Your task to perform on an android device: Add "amazon basics triple a" to the cart on newegg, then select checkout. Image 0: 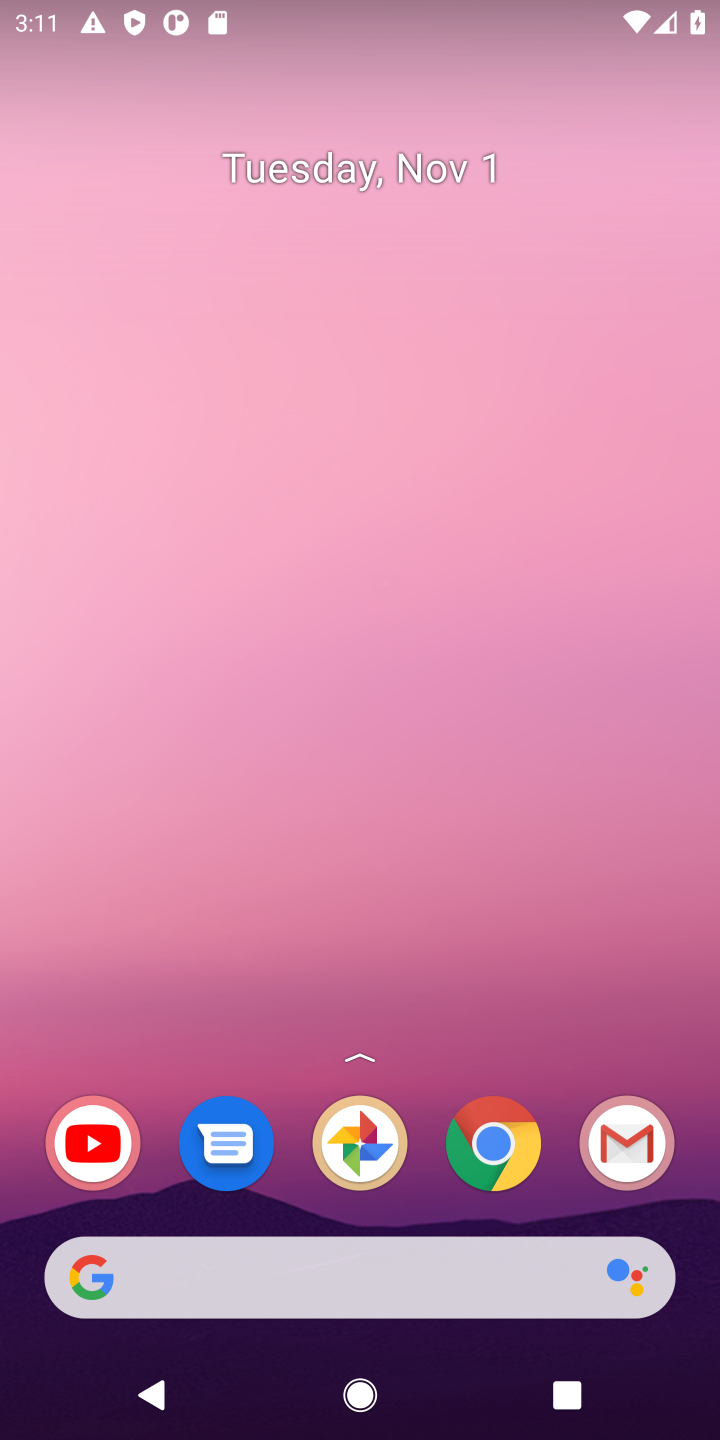
Step 0: click (554, 477)
Your task to perform on an android device: Add "amazon basics triple a" to the cart on newegg, then select checkout. Image 1: 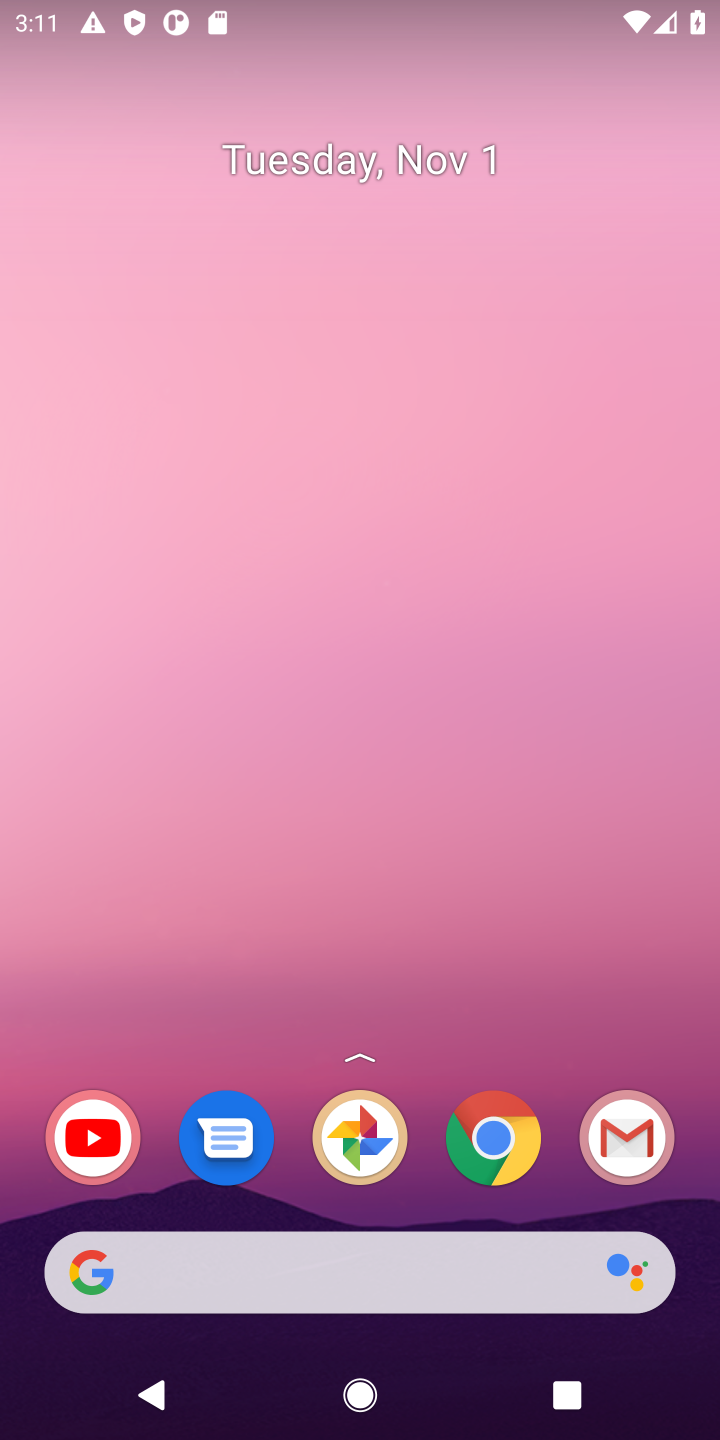
Step 1: click (486, 1134)
Your task to perform on an android device: Add "amazon basics triple a" to the cart on newegg, then select checkout. Image 2: 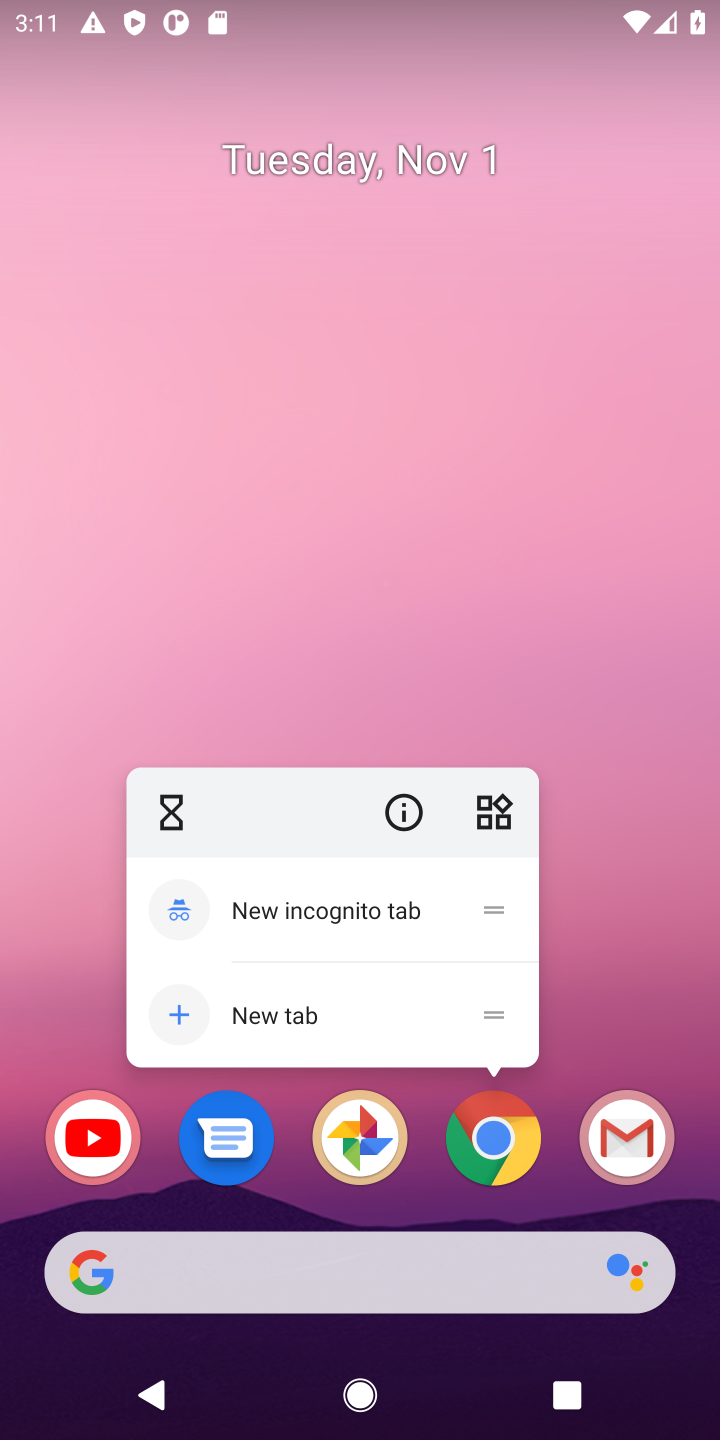
Step 2: click (486, 1134)
Your task to perform on an android device: Add "amazon basics triple a" to the cart on newegg, then select checkout. Image 3: 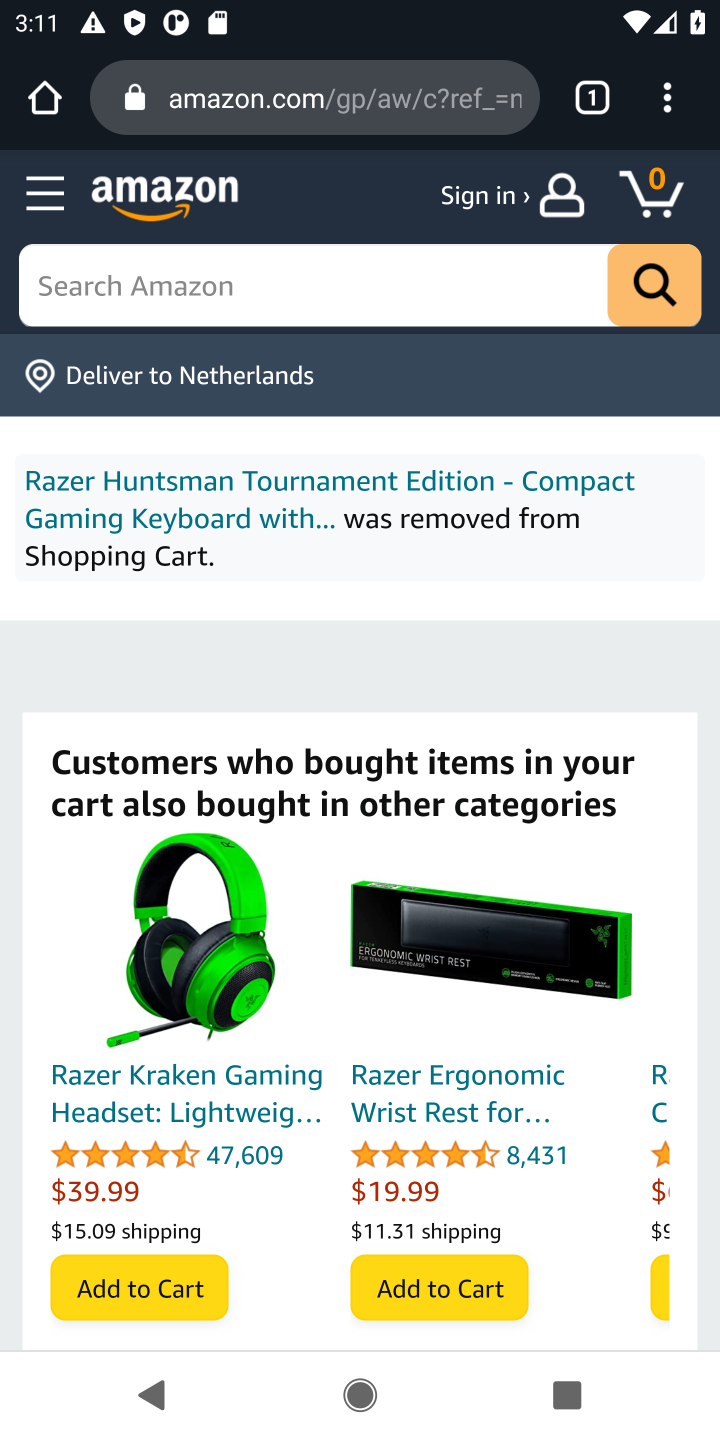
Step 3: click (328, 95)
Your task to perform on an android device: Add "amazon basics triple a" to the cart on newegg, then select checkout. Image 4: 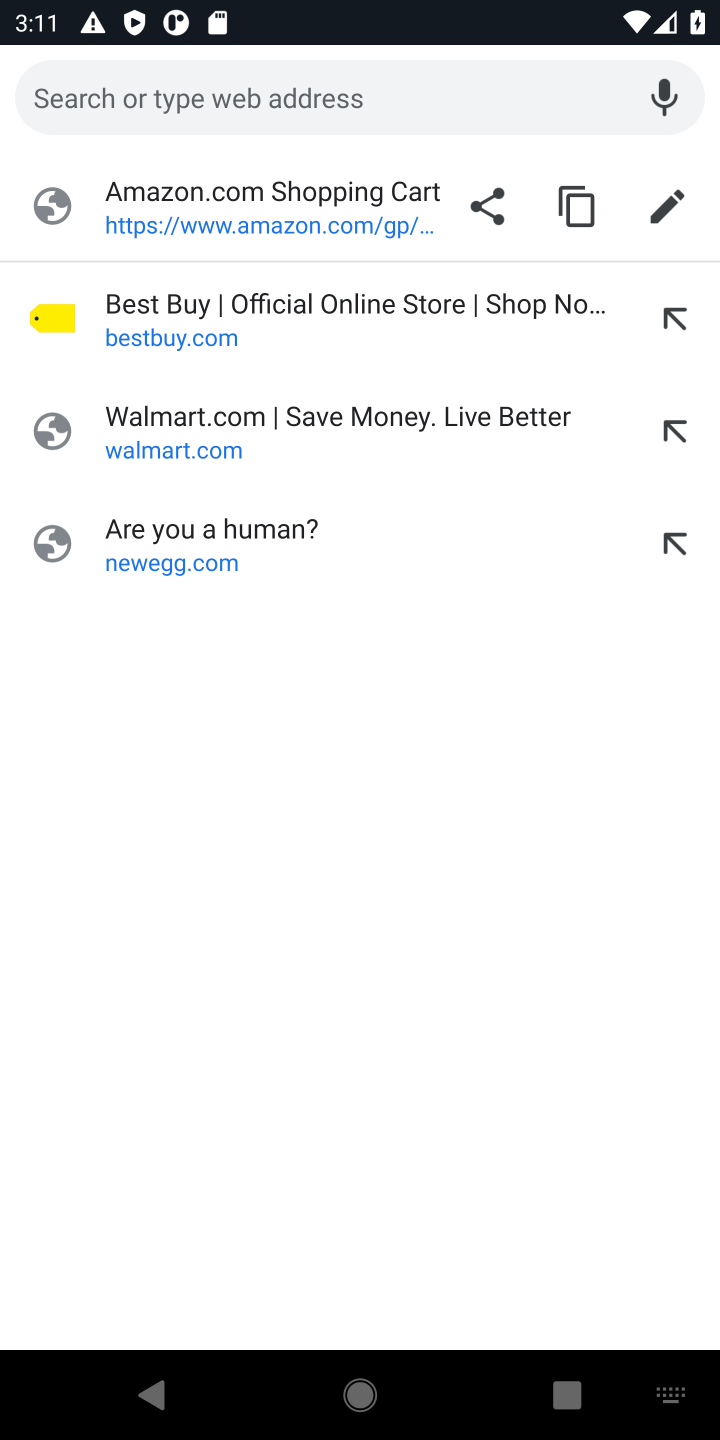
Step 4: type "newegg"
Your task to perform on an android device: Add "amazon basics triple a" to the cart on newegg, then select checkout. Image 5: 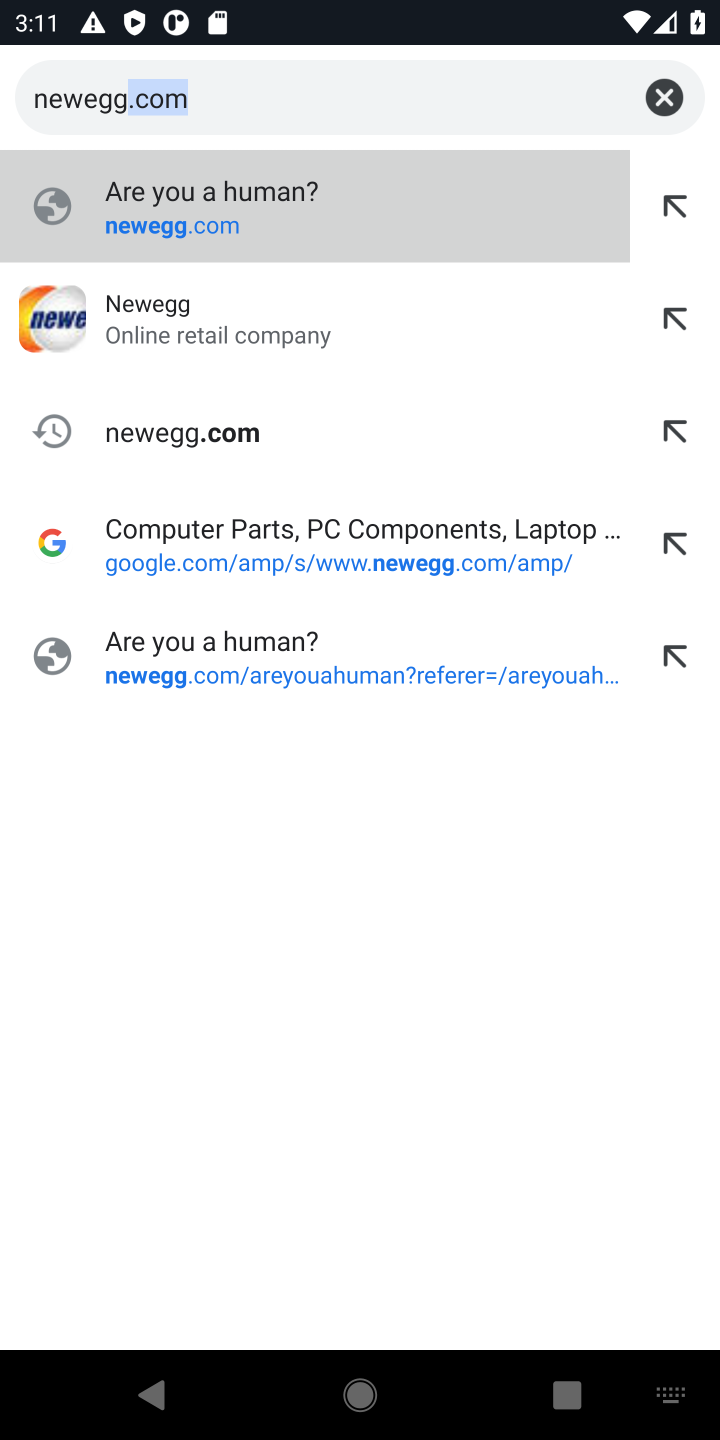
Step 5: click (178, 328)
Your task to perform on an android device: Add "amazon basics triple a" to the cart on newegg, then select checkout. Image 6: 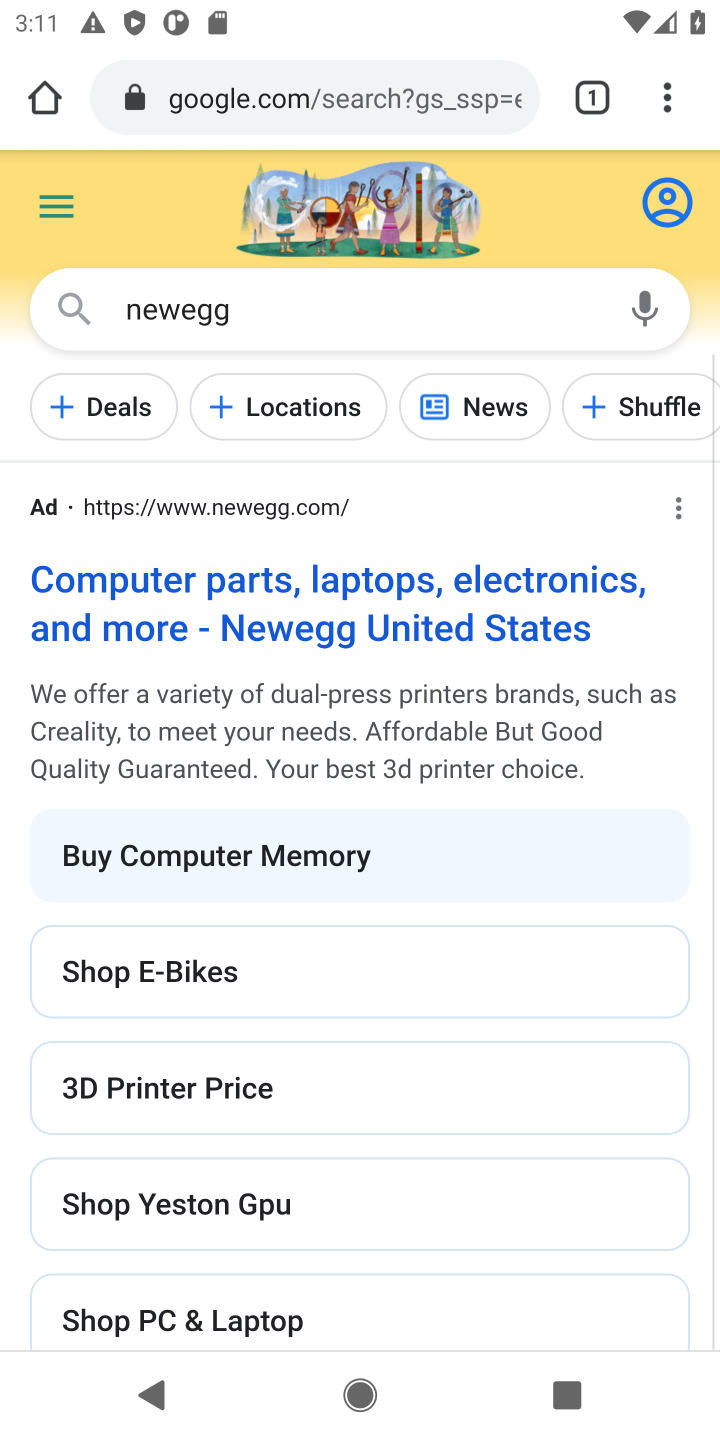
Step 6: drag from (274, 1125) to (233, 636)
Your task to perform on an android device: Add "amazon basics triple a" to the cart on newegg, then select checkout. Image 7: 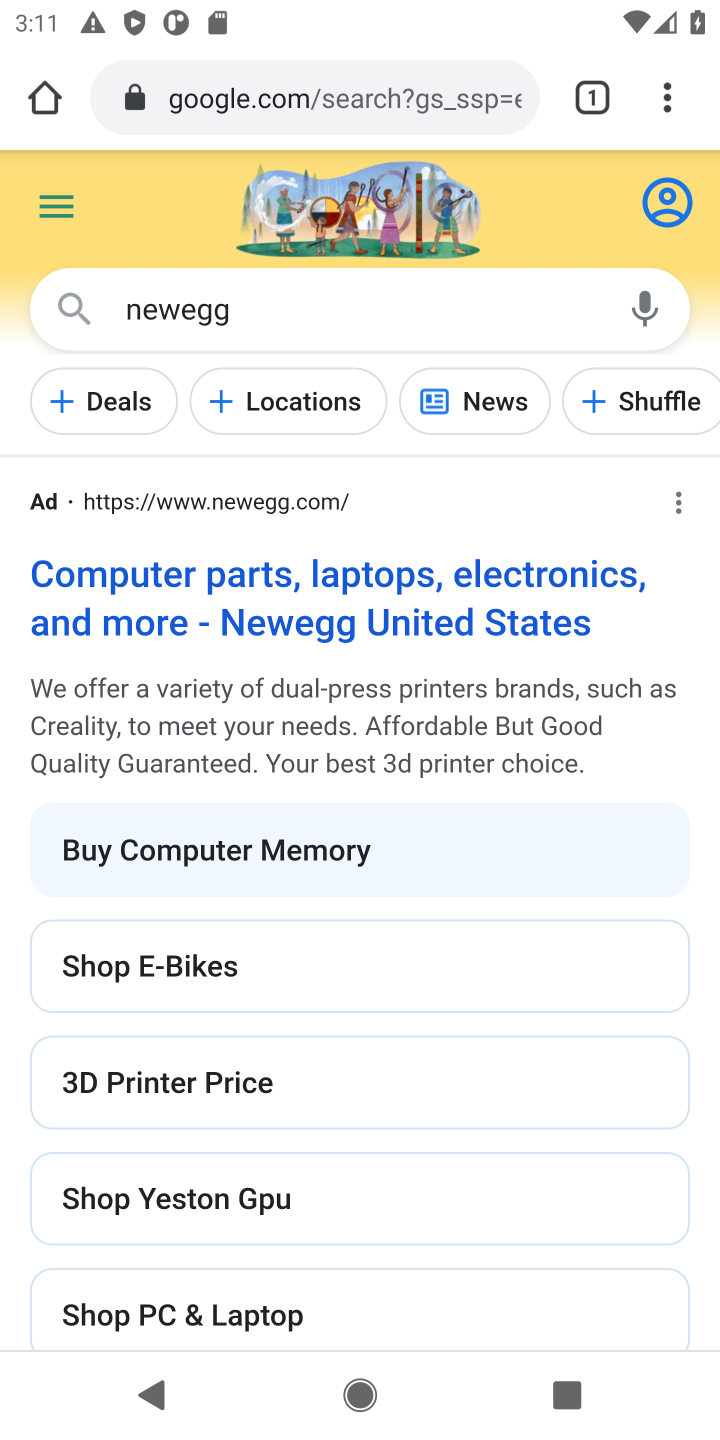
Step 7: drag from (259, 1098) to (250, 321)
Your task to perform on an android device: Add "amazon basics triple a" to the cart on newegg, then select checkout. Image 8: 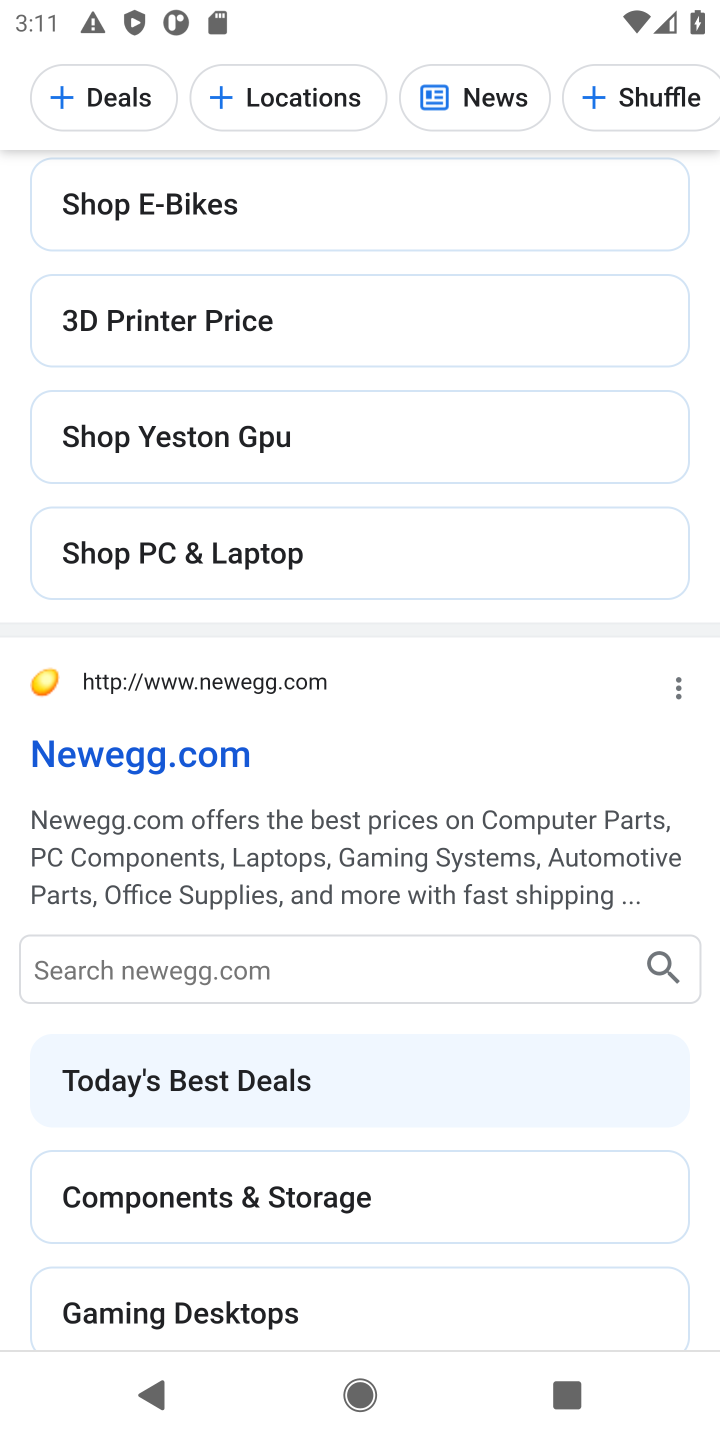
Step 8: click (155, 752)
Your task to perform on an android device: Add "amazon basics triple a" to the cart on newegg, then select checkout. Image 9: 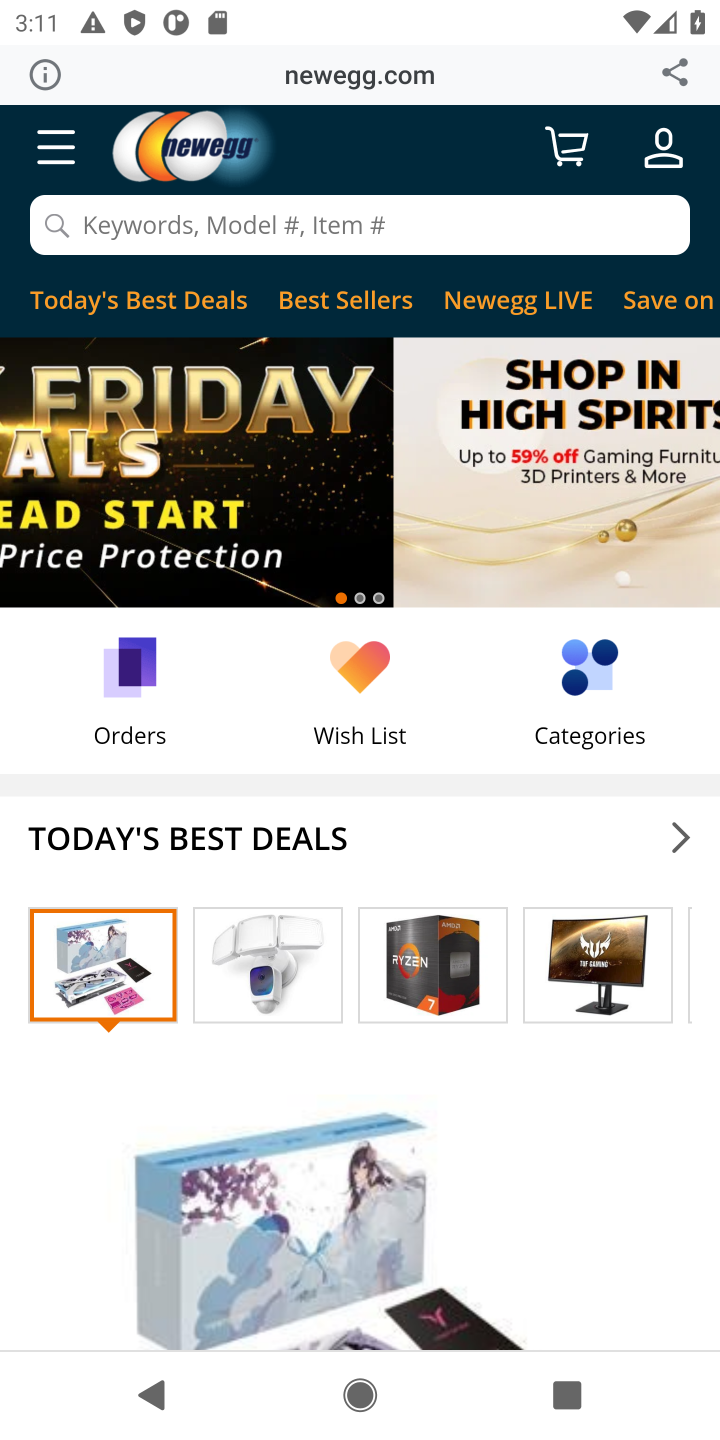
Step 9: click (343, 215)
Your task to perform on an android device: Add "amazon basics triple a" to the cart on newegg, then select checkout. Image 10: 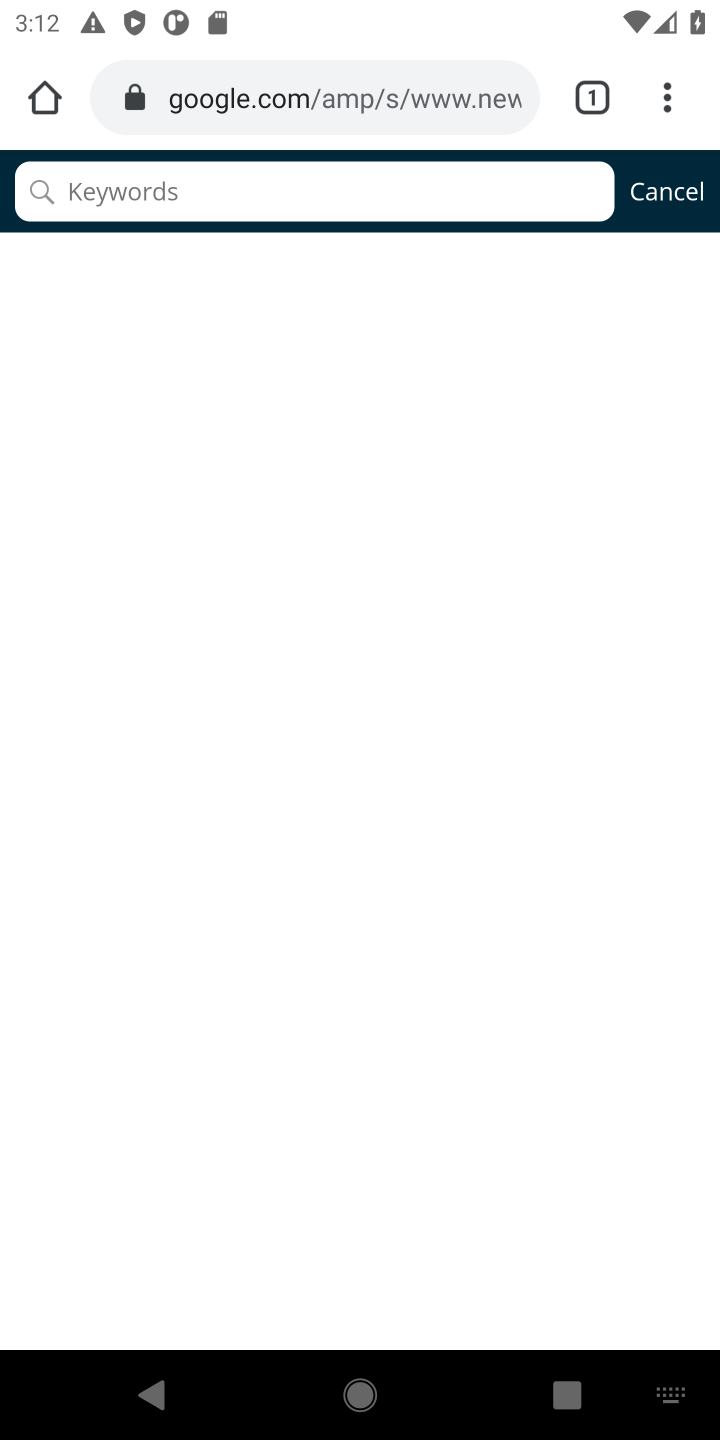
Step 10: type "amazon basics triple a"
Your task to perform on an android device: Add "amazon basics triple a" to the cart on newegg, then select checkout. Image 11: 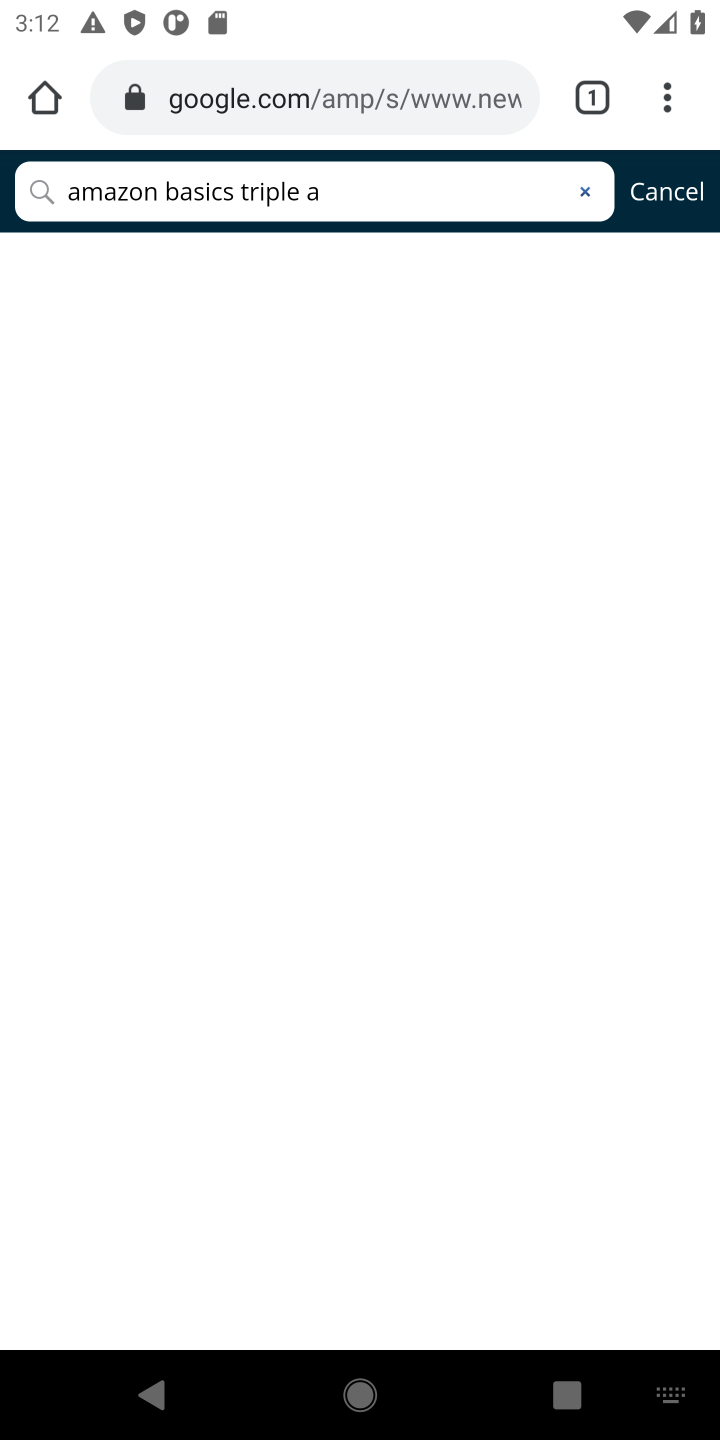
Step 11: click (393, 200)
Your task to perform on an android device: Add "amazon basics triple a" to the cart on newegg, then select checkout. Image 12: 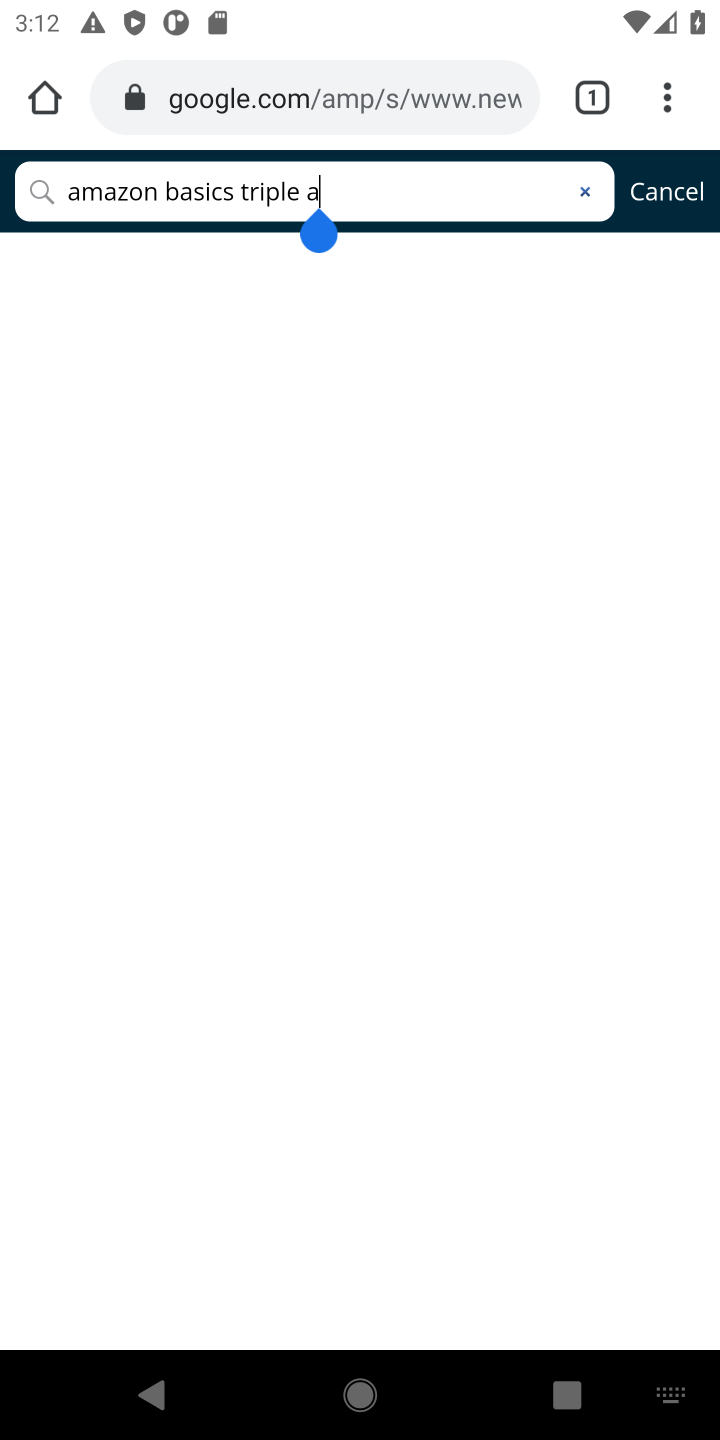
Step 12: task complete